Your task to perform on an android device: turn on airplane mode Image 0: 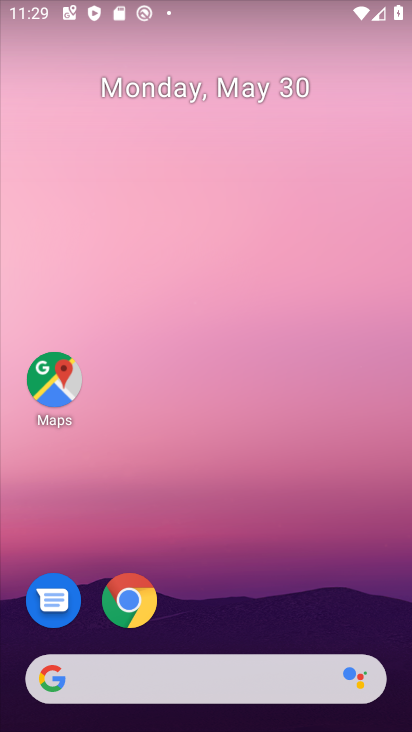
Step 0: drag from (217, 715) to (214, 7)
Your task to perform on an android device: turn on airplane mode Image 1: 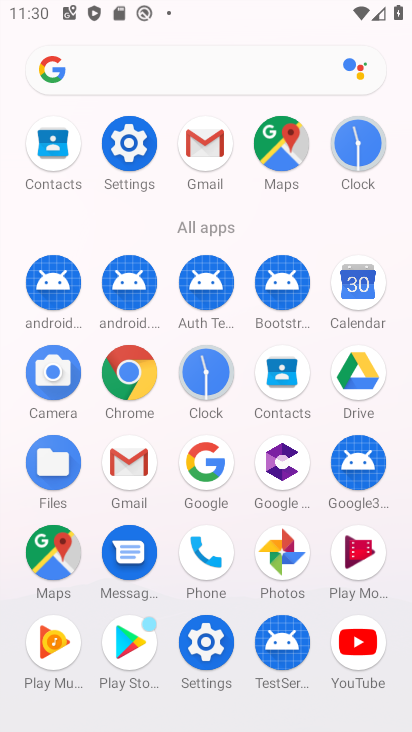
Step 1: click (129, 150)
Your task to perform on an android device: turn on airplane mode Image 2: 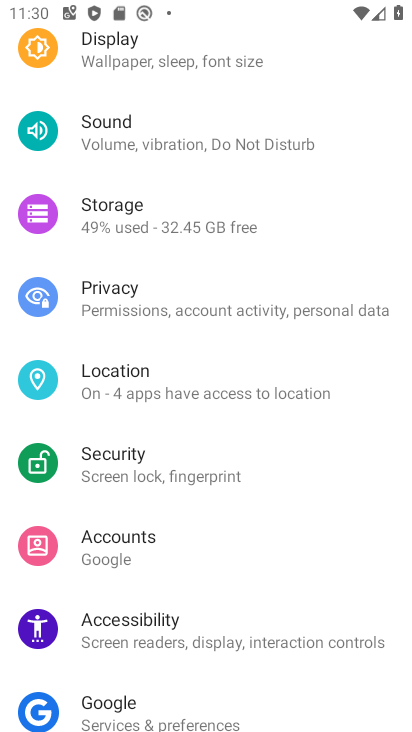
Step 2: drag from (218, 108) to (200, 629)
Your task to perform on an android device: turn on airplane mode Image 3: 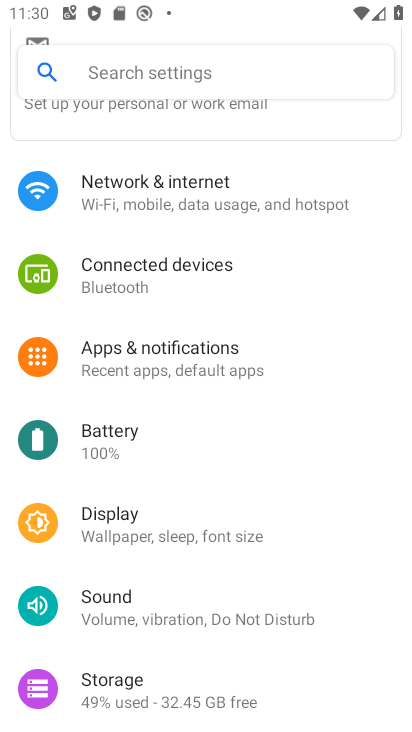
Step 3: click (141, 198)
Your task to perform on an android device: turn on airplane mode Image 4: 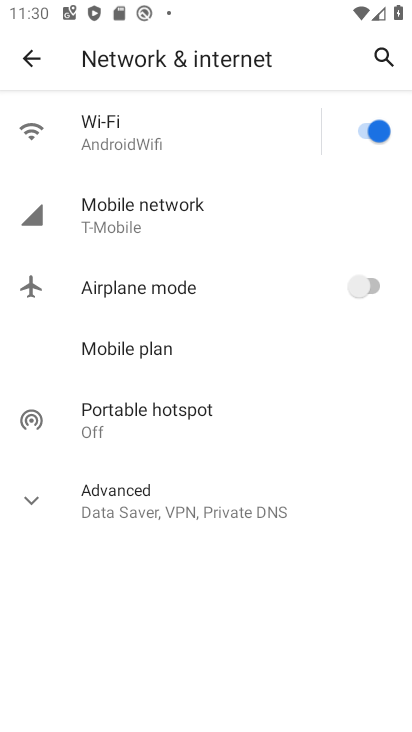
Step 4: click (374, 286)
Your task to perform on an android device: turn on airplane mode Image 5: 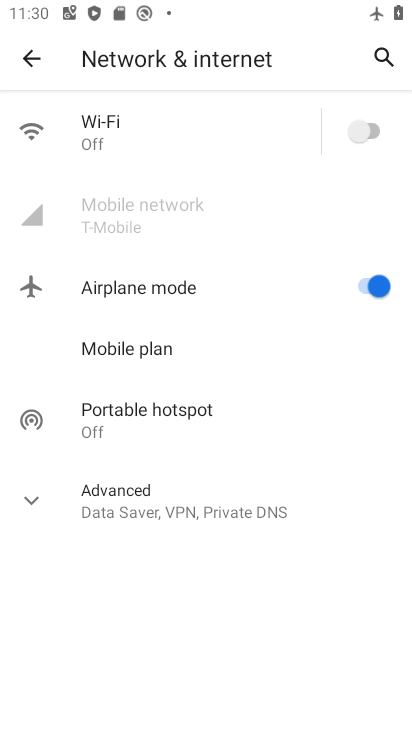
Step 5: task complete